Your task to perform on an android device: Check the news Image 0: 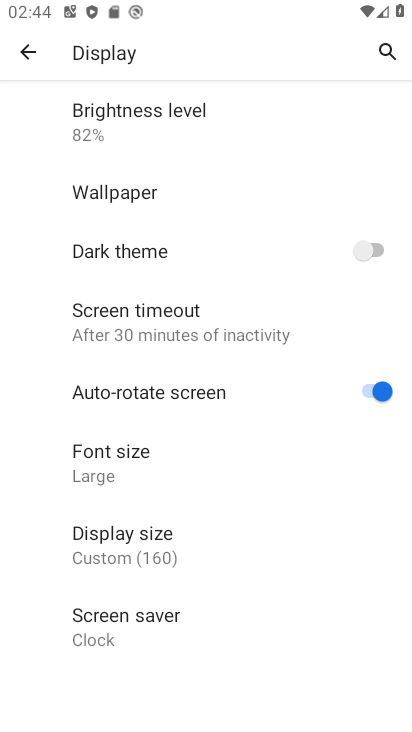
Step 0: press home button
Your task to perform on an android device: Check the news Image 1: 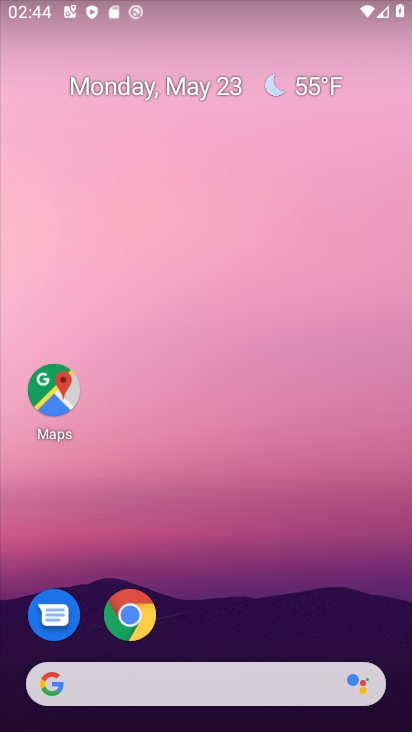
Step 1: task complete